Your task to perform on an android device: Go to Wikipedia Image 0: 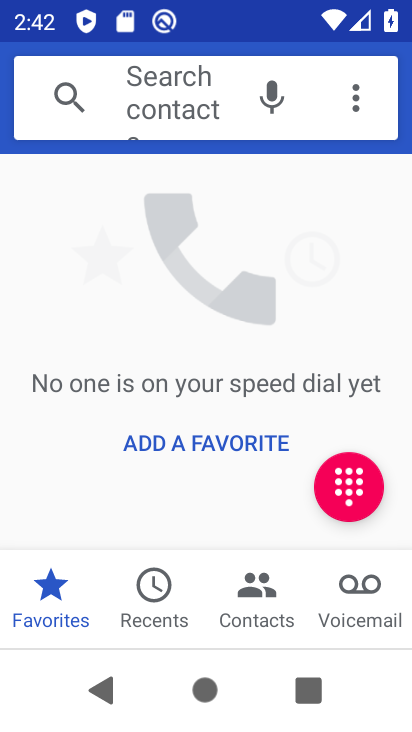
Step 0: press home button
Your task to perform on an android device: Go to Wikipedia Image 1: 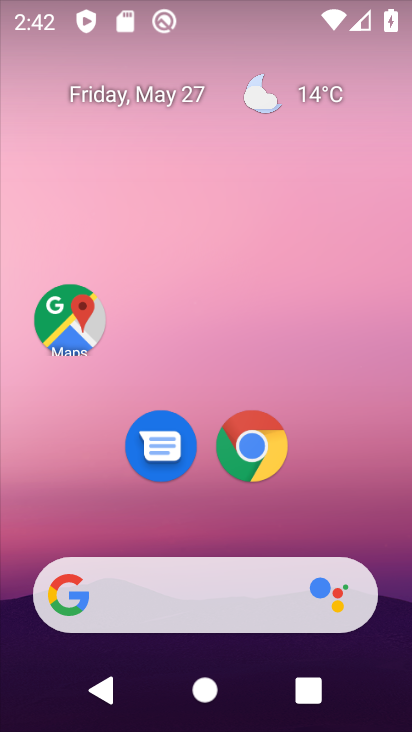
Step 1: click (244, 437)
Your task to perform on an android device: Go to Wikipedia Image 2: 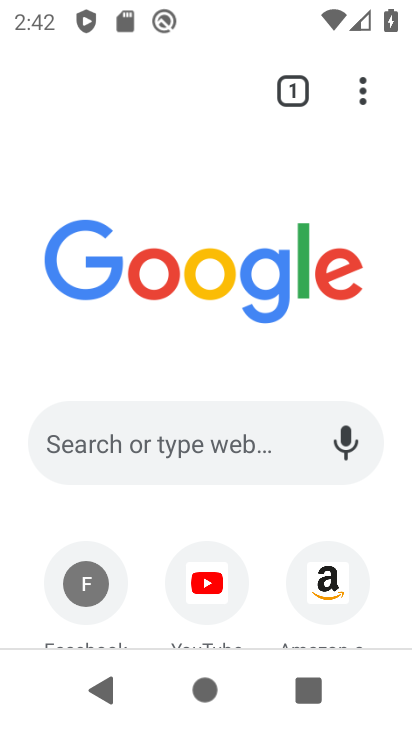
Step 2: drag from (361, 100) to (135, 181)
Your task to perform on an android device: Go to Wikipedia Image 3: 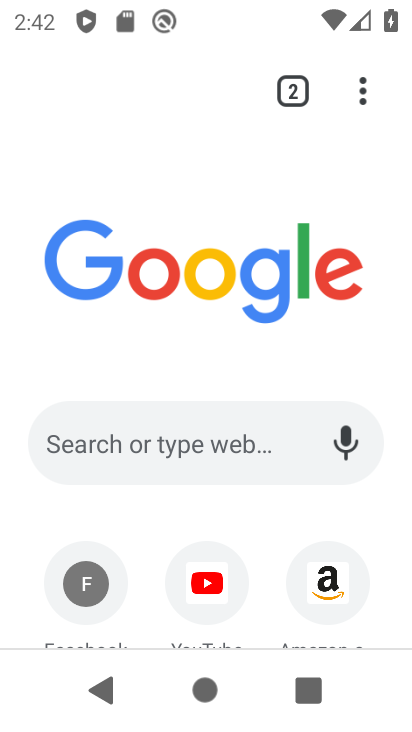
Step 3: drag from (230, 531) to (364, 130)
Your task to perform on an android device: Go to Wikipedia Image 4: 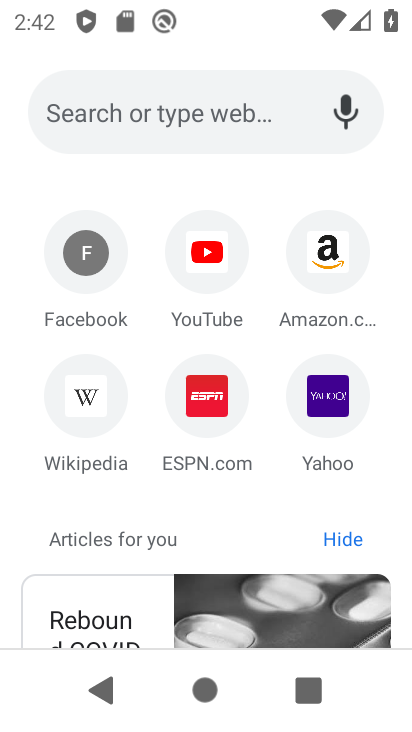
Step 4: click (87, 400)
Your task to perform on an android device: Go to Wikipedia Image 5: 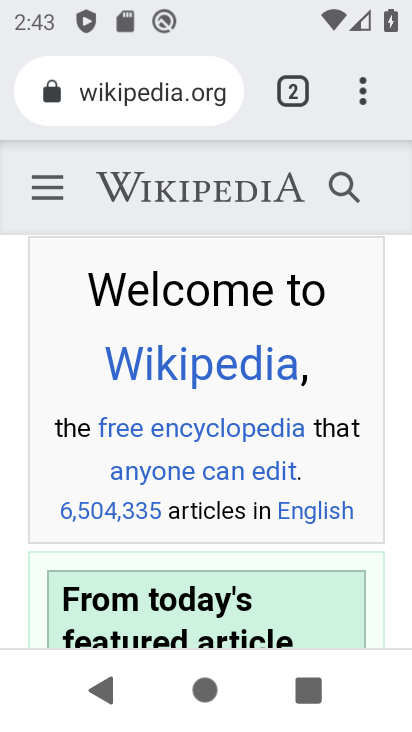
Step 5: task complete